Your task to perform on an android device: Open Yahoo.com Image 0: 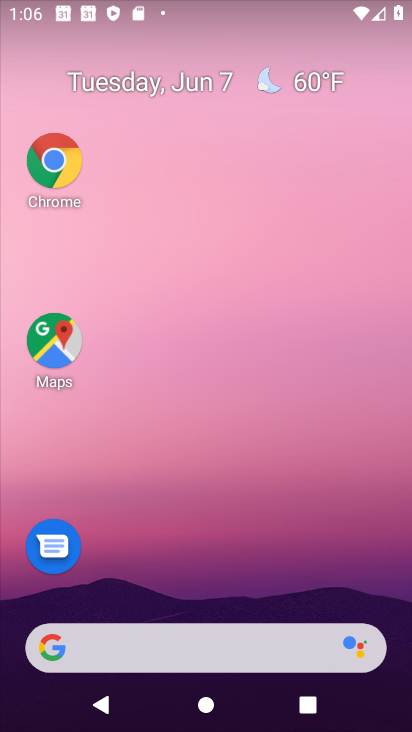
Step 0: click (380, 75)
Your task to perform on an android device: Open Yahoo.com Image 1: 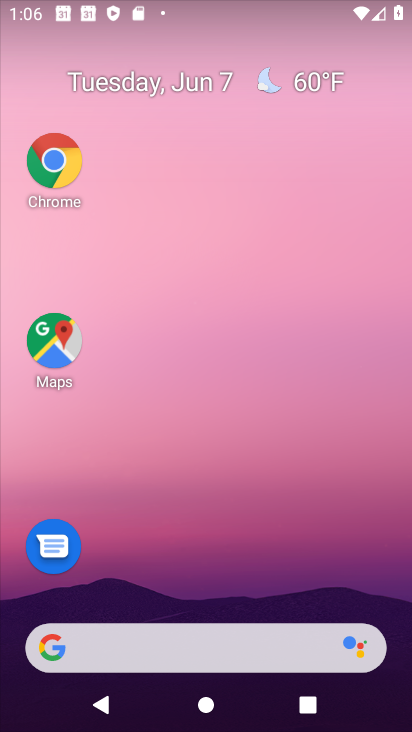
Step 1: drag from (170, 576) to (292, 58)
Your task to perform on an android device: Open Yahoo.com Image 2: 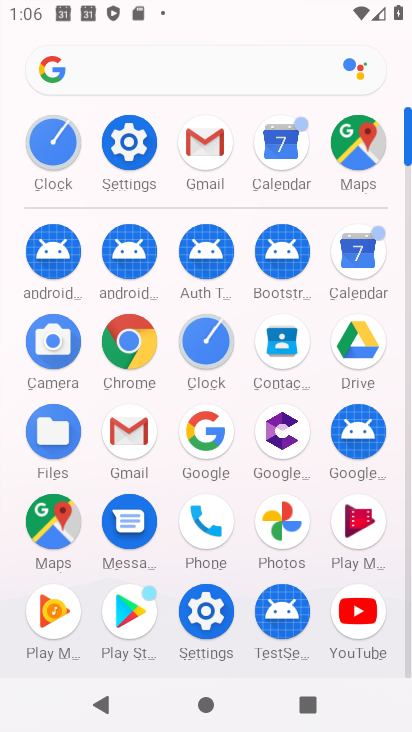
Step 2: click (160, 71)
Your task to perform on an android device: Open Yahoo.com Image 3: 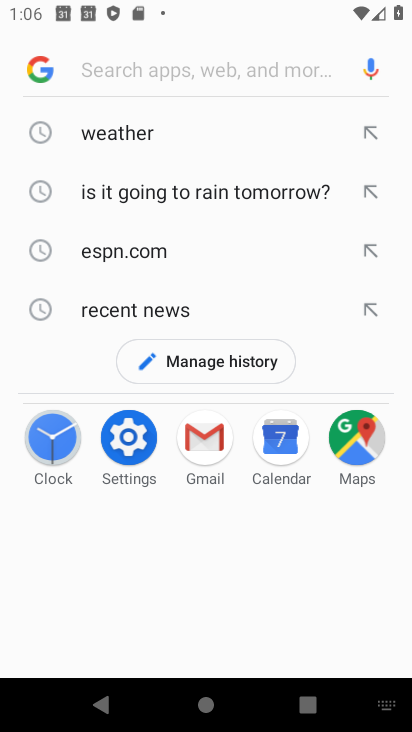
Step 3: type "Yahoo.com"
Your task to perform on an android device: Open Yahoo.com Image 4: 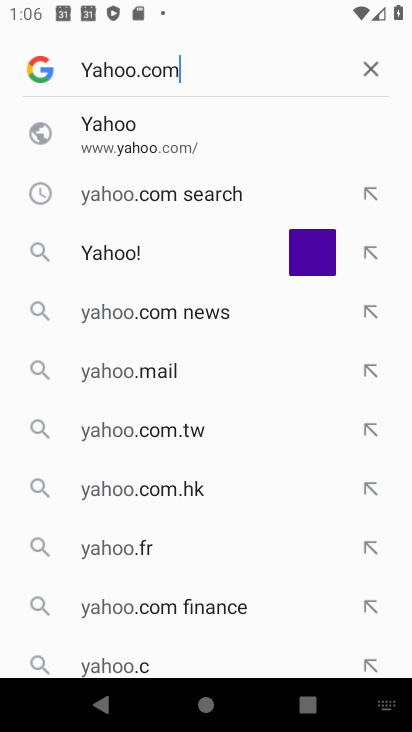
Step 4: type ""
Your task to perform on an android device: Open Yahoo.com Image 5: 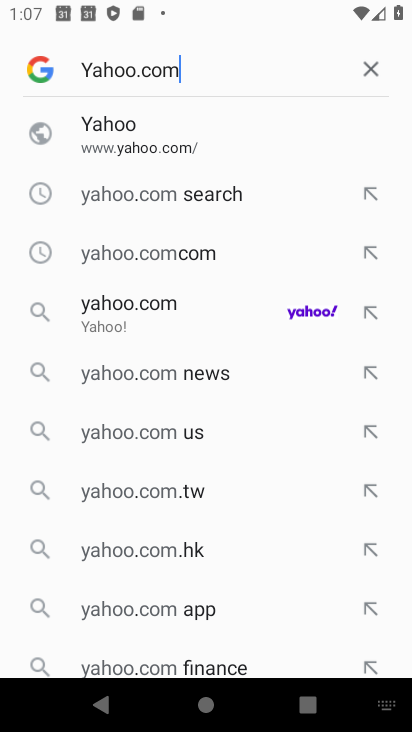
Step 5: click (221, 305)
Your task to perform on an android device: Open Yahoo.com Image 6: 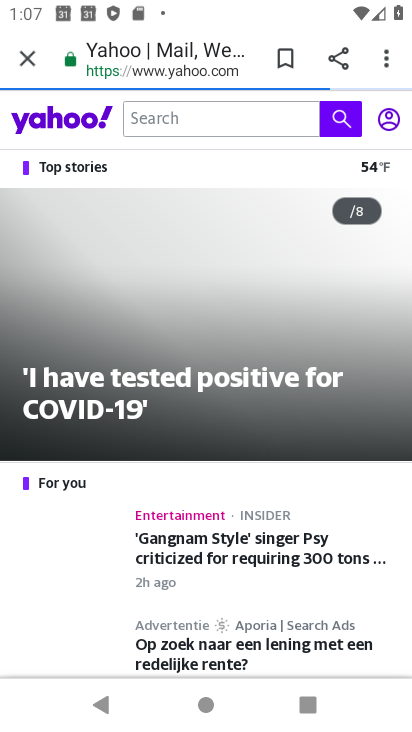
Step 6: task complete